Your task to perform on an android device: Go to notification settings Image 0: 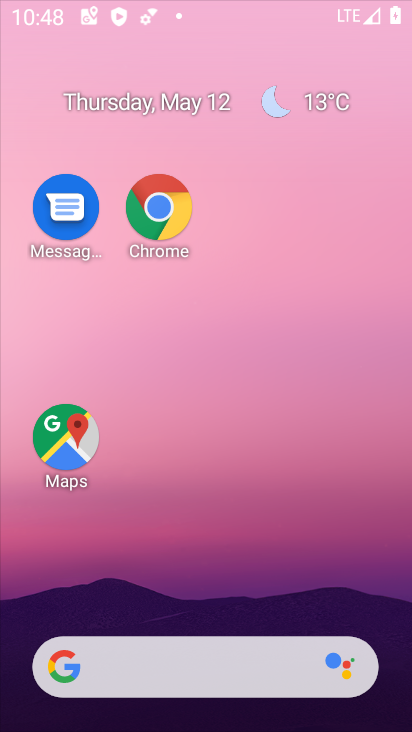
Step 0: click (304, 5)
Your task to perform on an android device: Go to notification settings Image 1: 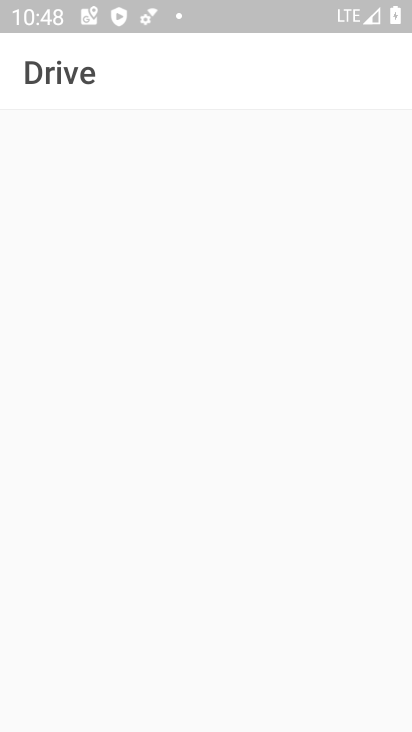
Step 1: press home button
Your task to perform on an android device: Go to notification settings Image 2: 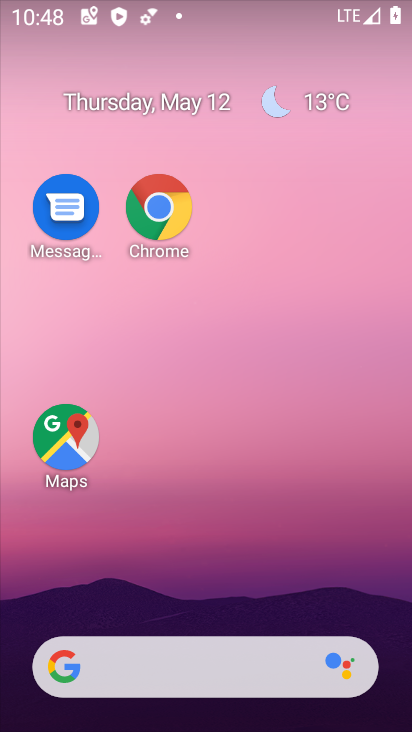
Step 2: drag from (192, 603) to (107, 7)
Your task to perform on an android device: Go to notification settings Image 3: 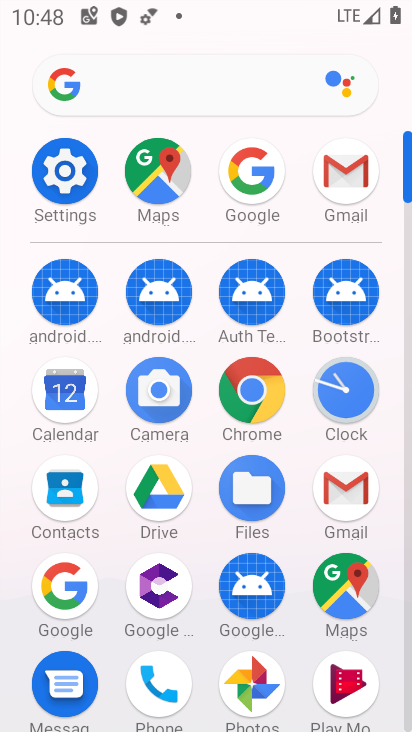
Step 3: click (66, 197)
Your task to perform on an android device: Go to notification settings Image 4: 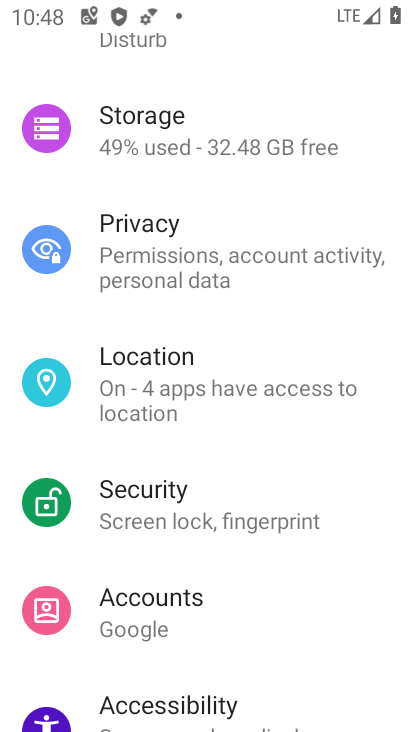
Step 4: drag from (197, 559) to (114, 70)
Your task to perform on an android device: Go to notification settings Image 5: 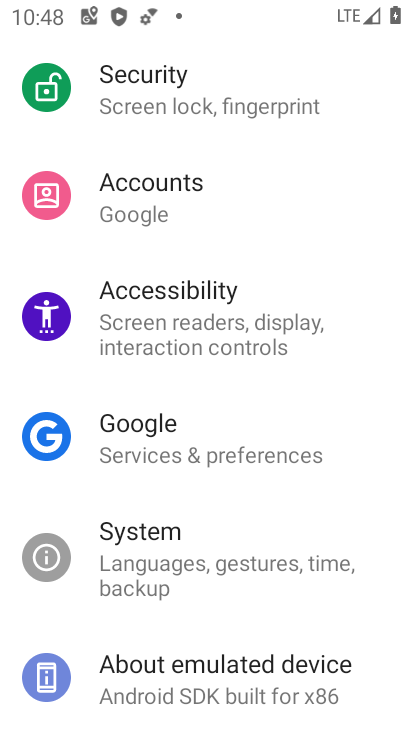
Step 5: drag from (202, 178) to (184, 715)
Your task to perform on an android device: Go to notification settings Image 6: 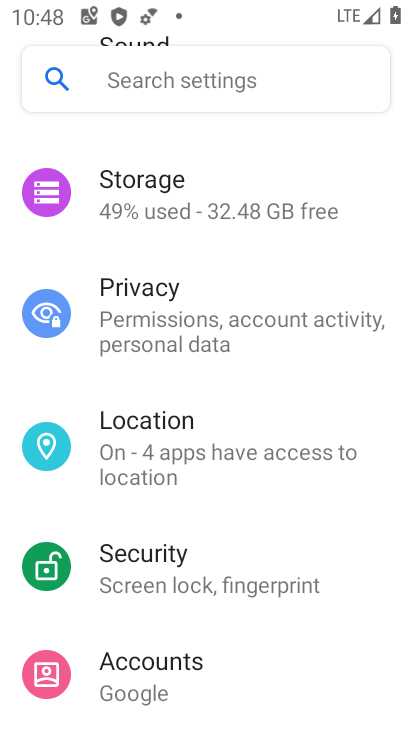
Step 6: drag from (182, 188) to (178, 731)
Your task to perform on an android device: Go to notification settings Image 7: 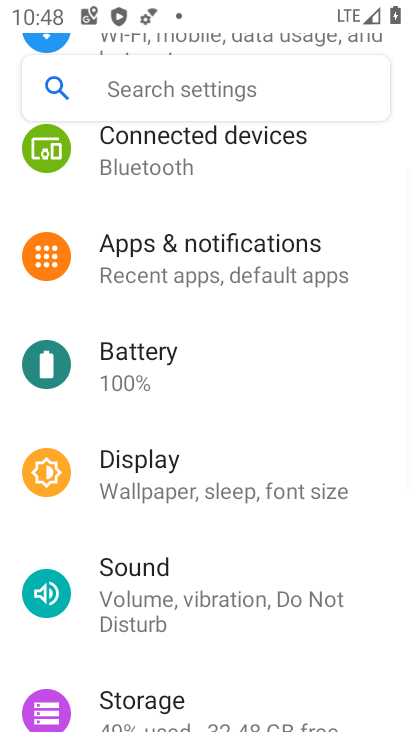
Step 7: click (169, 261)
Your task to perform on an android device: Go to notification settings Image 8: 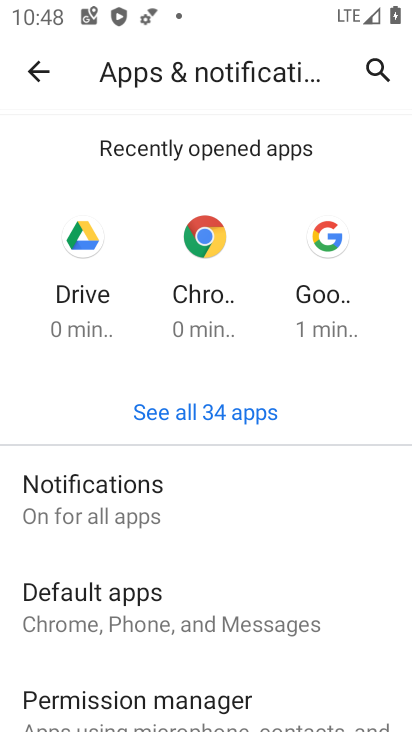
Step 8: click (137, 488)
Your task to perform on an android device: Go to notification settings Image 9: 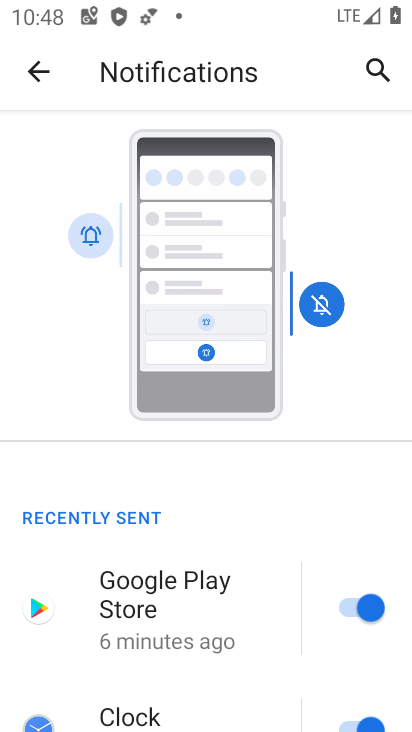
Step 9: task complete